Your task to perform on an android device: Open the stopwatch Image 0: 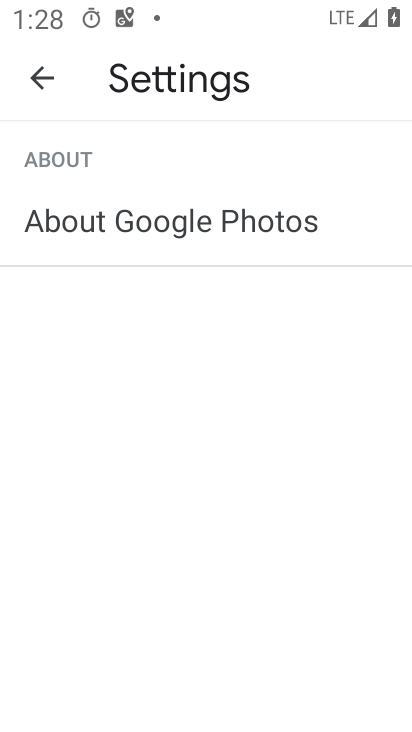
Step 0: press home button
Your task to perform on an android device: Open the stopwatch Image 1: 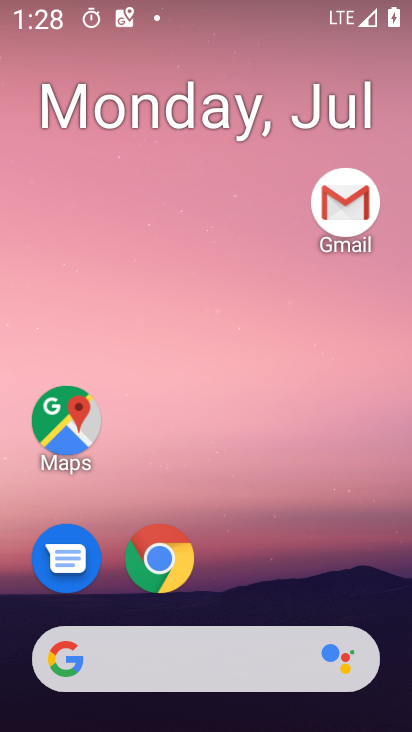
Step 1: drag from (301, 494) to (302, 94)
Your task to perform on an android device: Open the stopwatch Image 2: 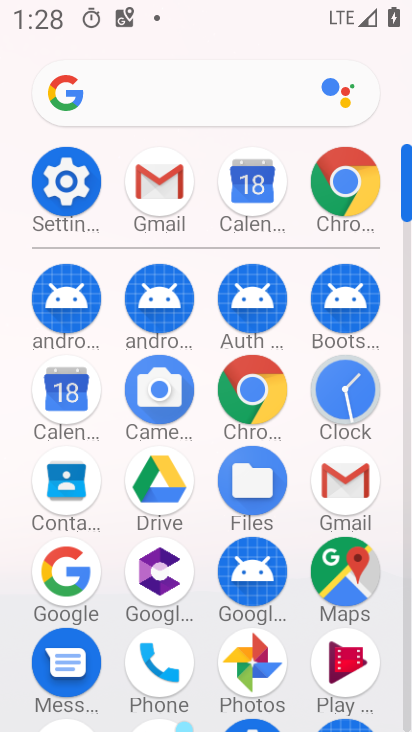
Step 2: click (352, 401)
Your task to perform on an android device: Open the stopwatch Image 3: 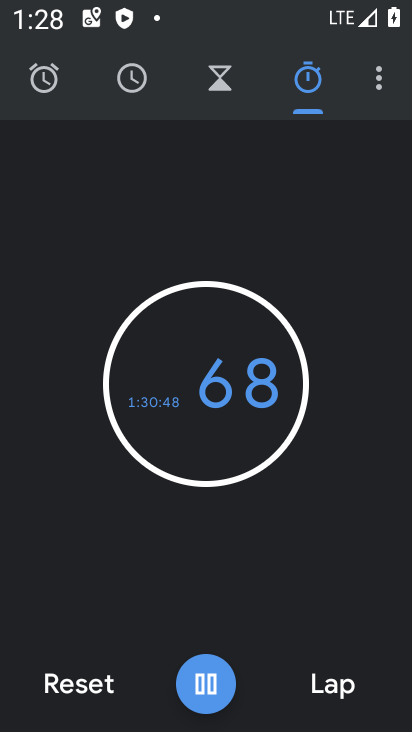
Step 3: task complete